Your task to perform on an android device: Go to accessibility settings Image 0: 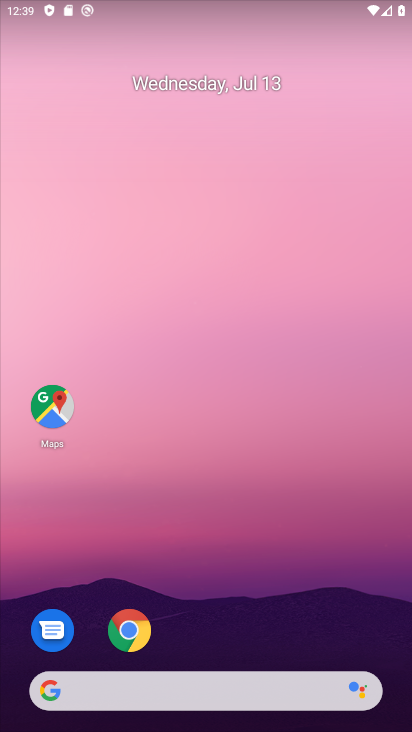
Step 0: drag from (33, 713) to (233, 69)
Your task to perform on an android device: Go to accessibility settings Image 1: 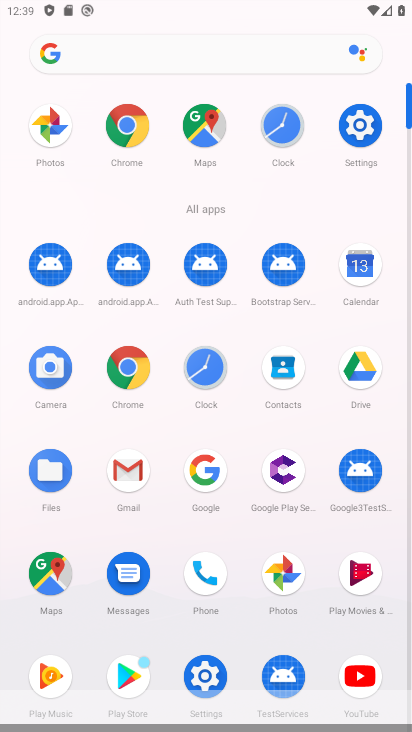
Step 1: click (195, 672)
Your task to perform on an android device: Go to accessibility settings Image 2: 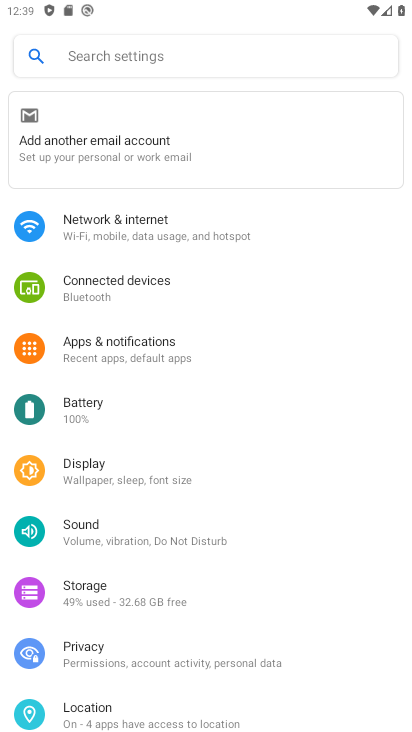
Step 2: drag from (317, 690) to (322, 262)
Your task to perform on an android device: Go to accessibility settings Image 3: 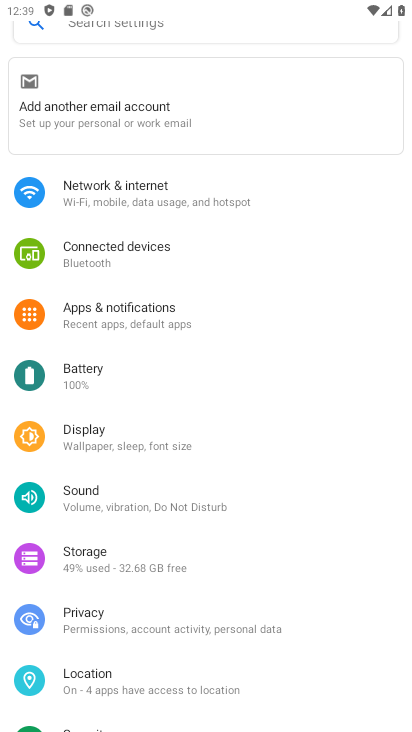
Step 3: drag from (262, 716) to (370, 62)
Your task to perform on an android device: Go to accessibility settings Image 4: 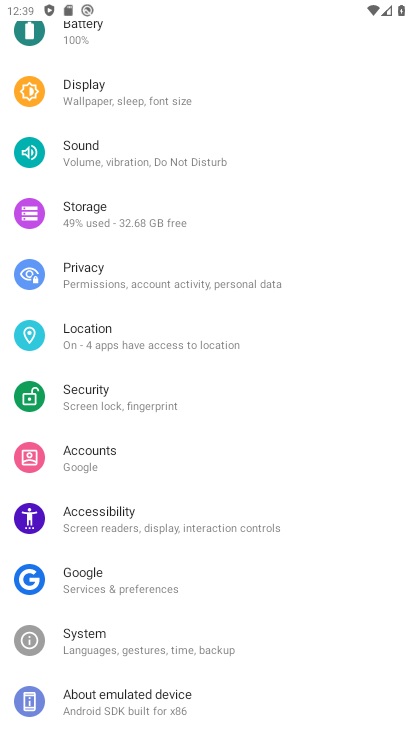
Step 4: click (109, 525)
Your task to perform on an android device: Go to accessibility settings Image 5: 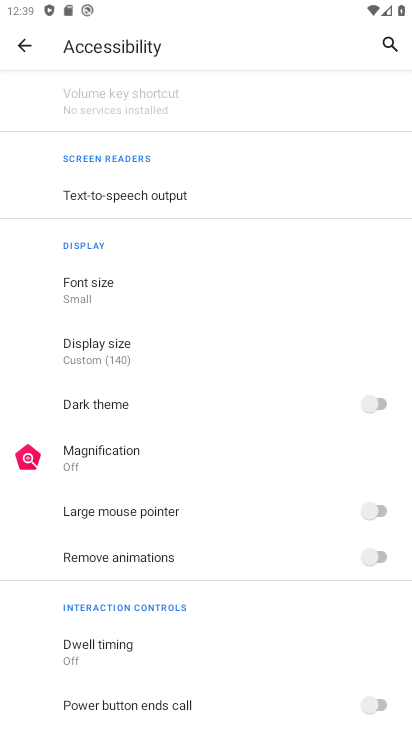
Step 5: task complete